Your task to perform on an android device: install app "Microsoft Outlook" Image 0: 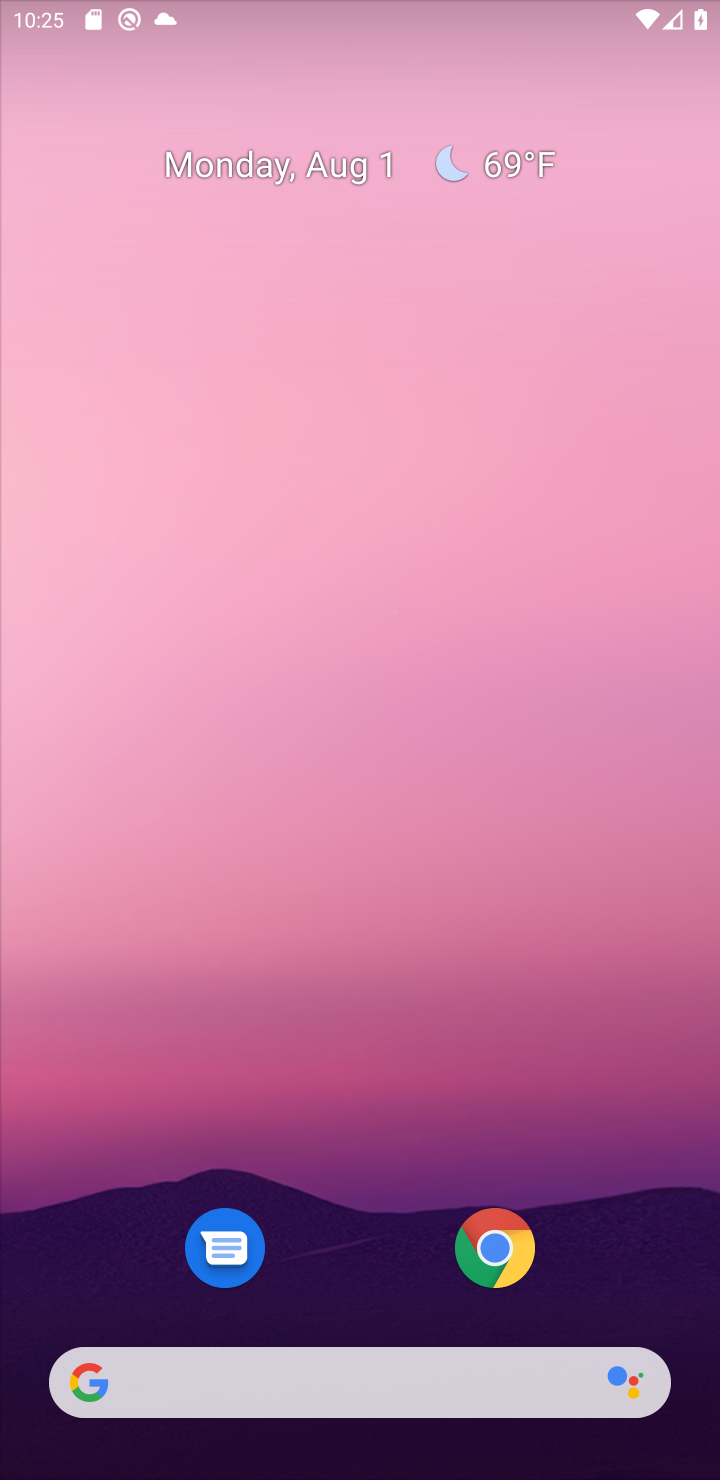
Step 0: press home button
Your task to perform on an android device: install app "Microsoft Outlook" Image 1: 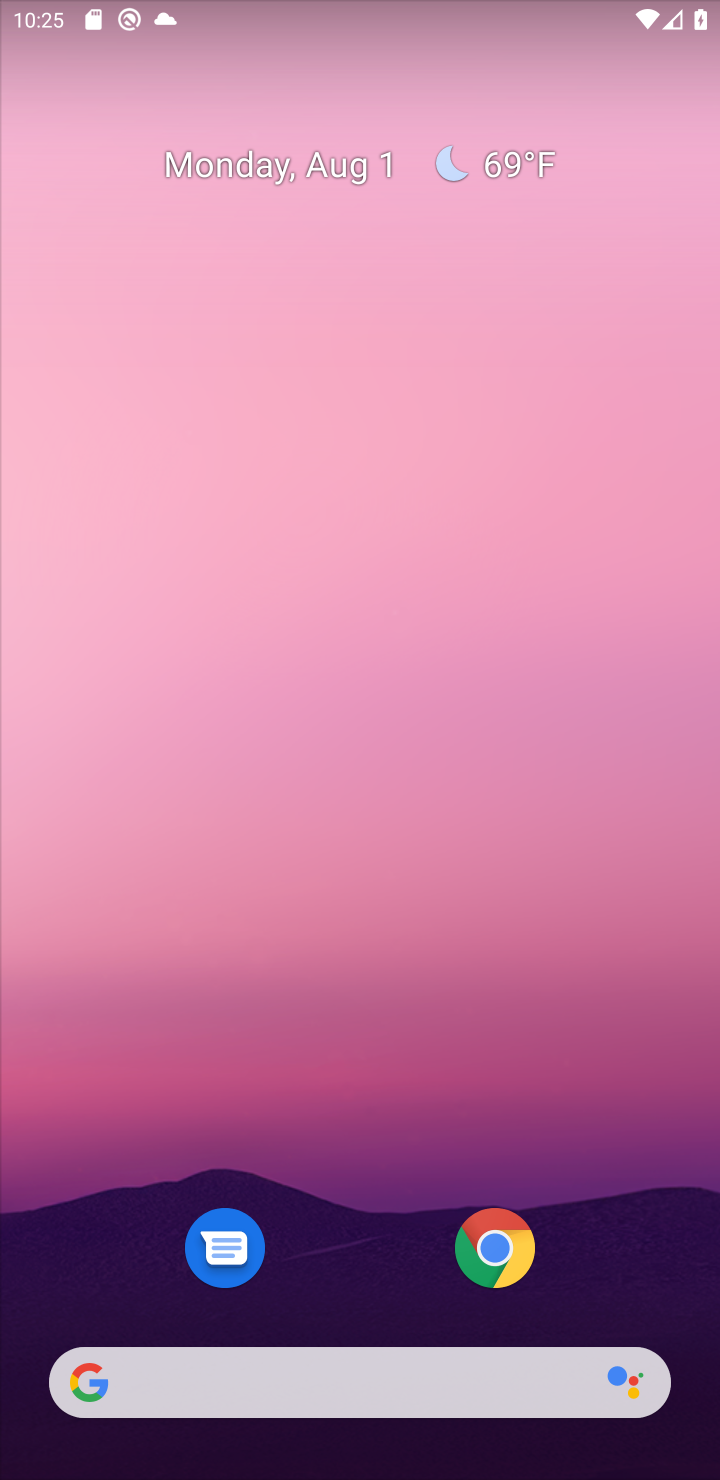
Step 1: drag from (339, 1265) to (449, 1)
Your task to perform on an android device: install app "Microsoft Outlook" Image 2: 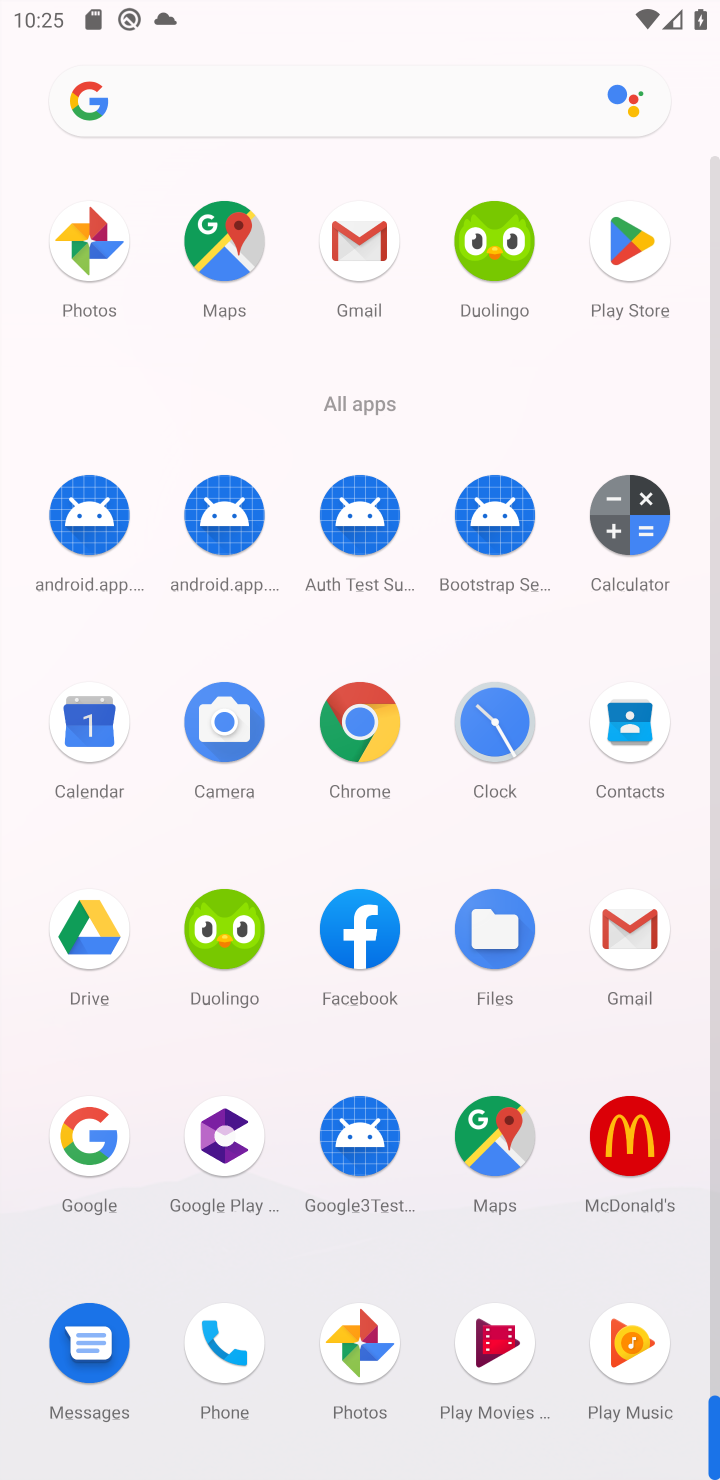
Step 2: drag from (559, 1286) to (617, 411)
Your task to perform on an android device: install app "Microsoft Outlook" Image 3: 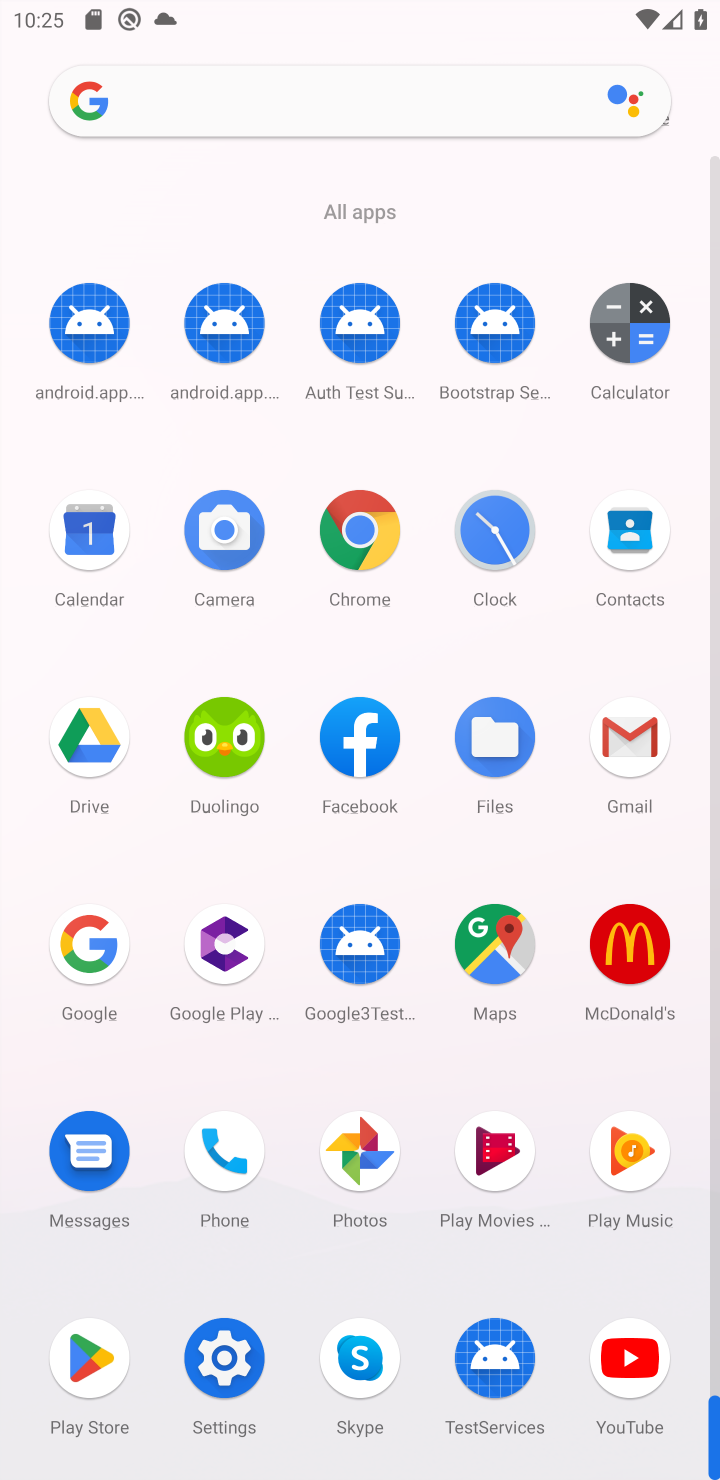
Step 3: click (81, 1368)
Your task to perform on an android device: install app "Microsoft Outlook" Image 4: 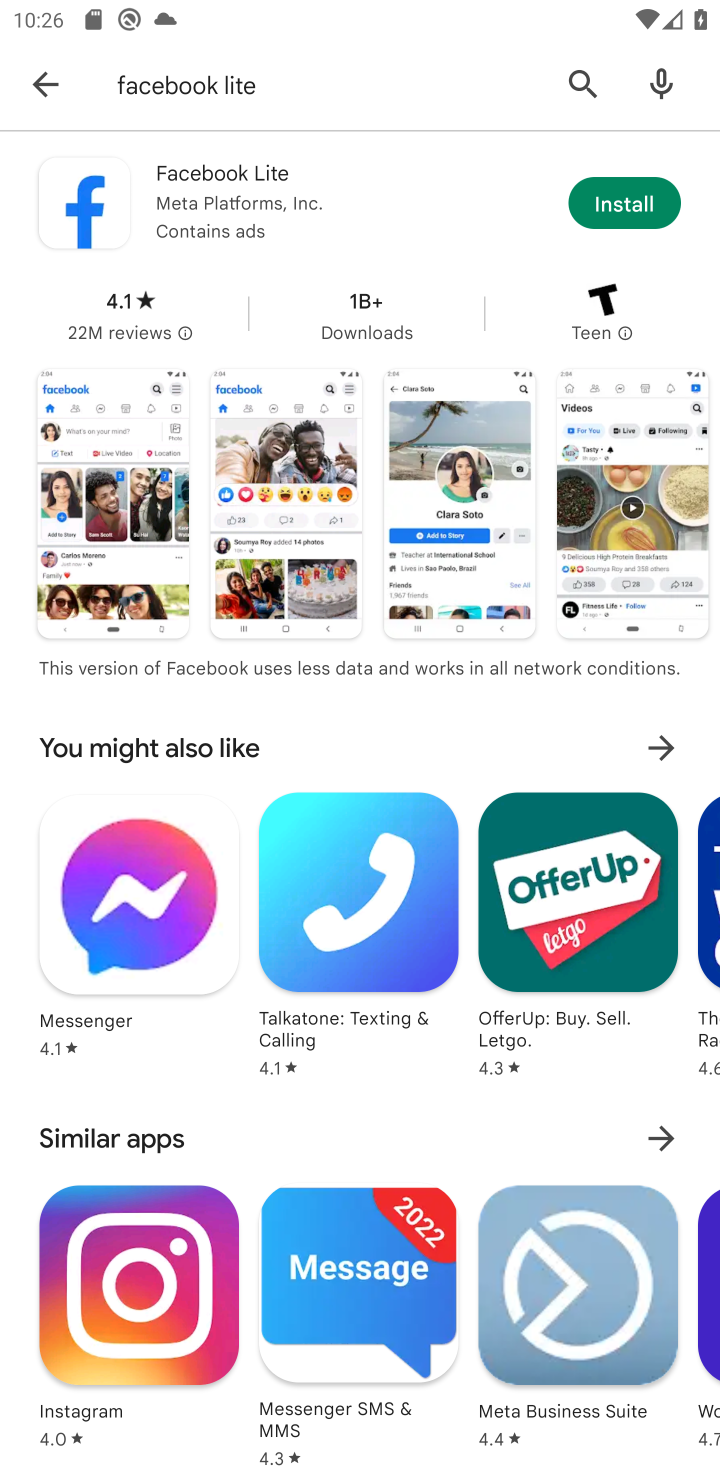
Step 4: click (441, 101)
Your task to perform on an android device: install app "Microsoft Outlook" Image 5: 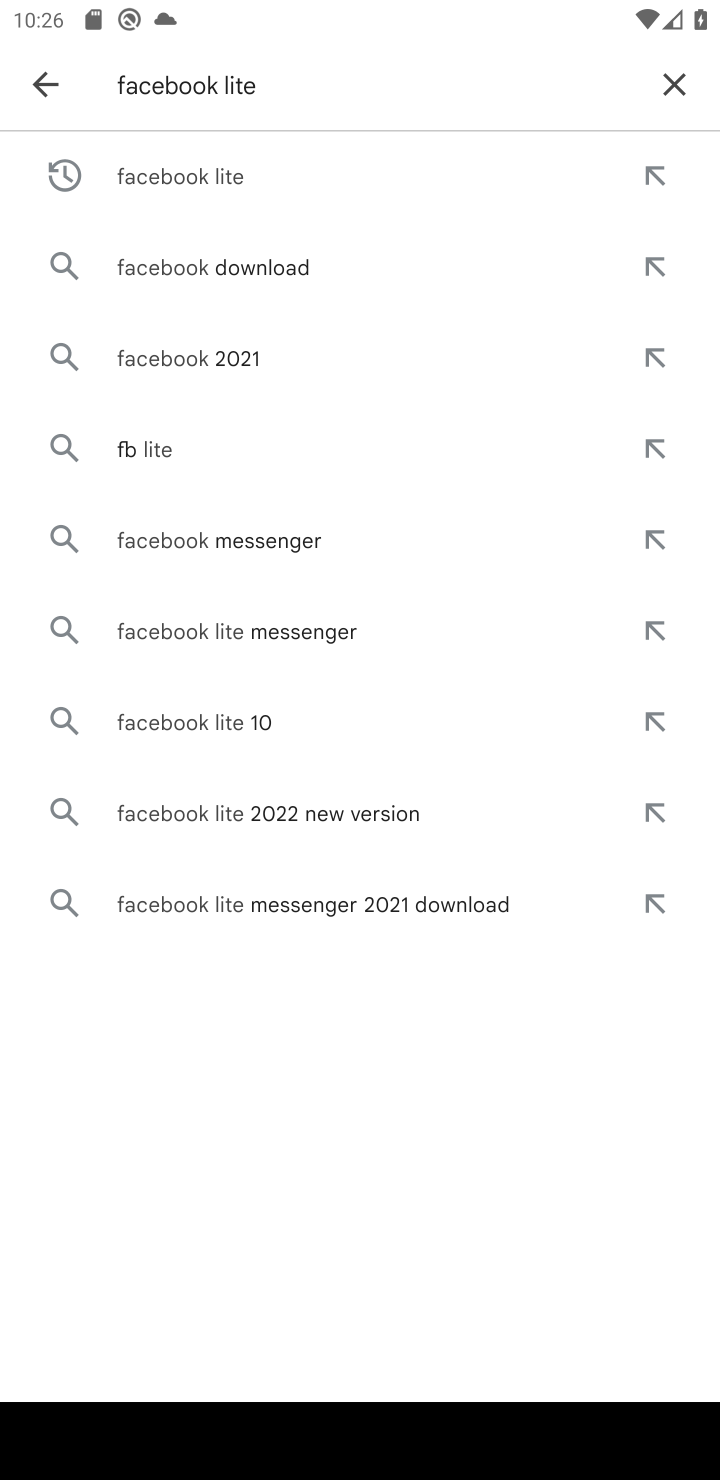
Step 5: click (689, 77)
Your task to perform on an android device: install app "Microsoft Outlook" Image 6: 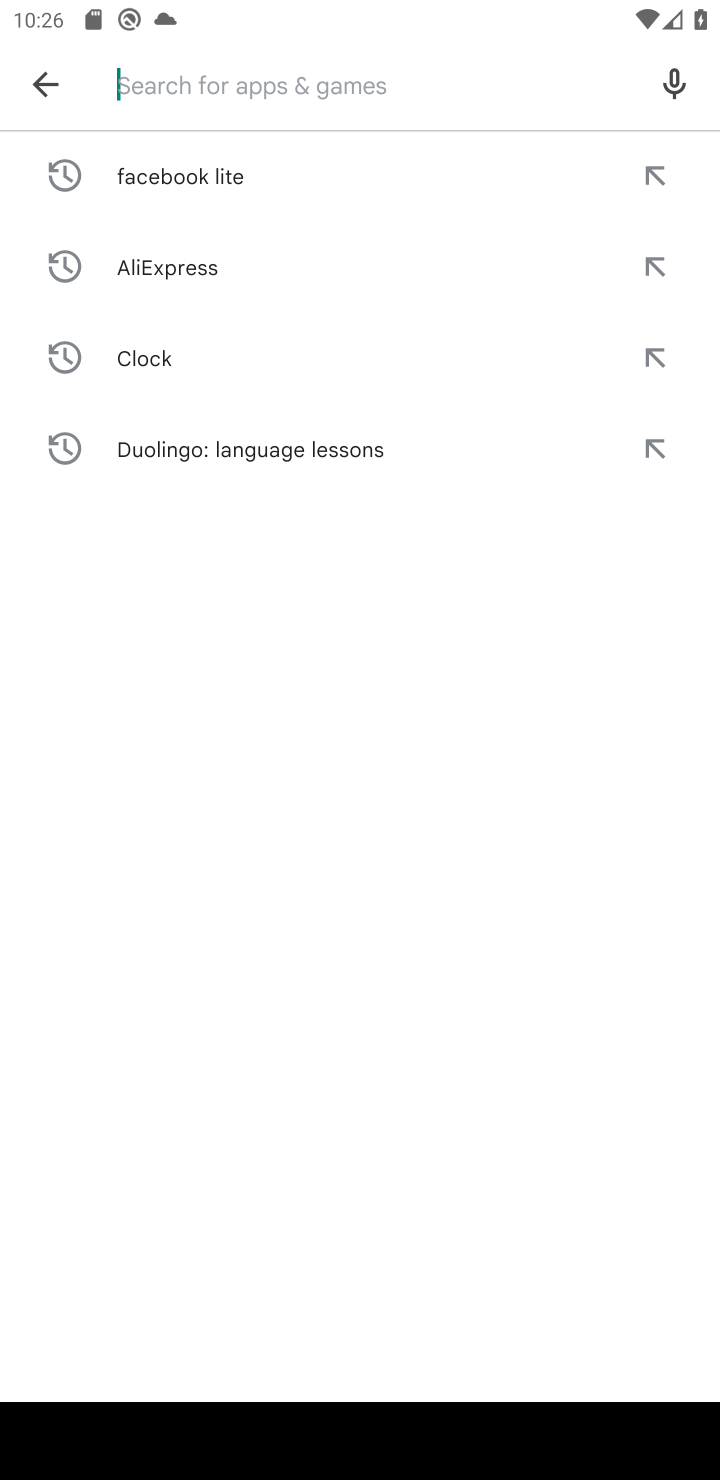
Step 6: type "Microsoft Outlook"
Your task to perform on an android device: install app "Microsoft Outlook" Image 7: 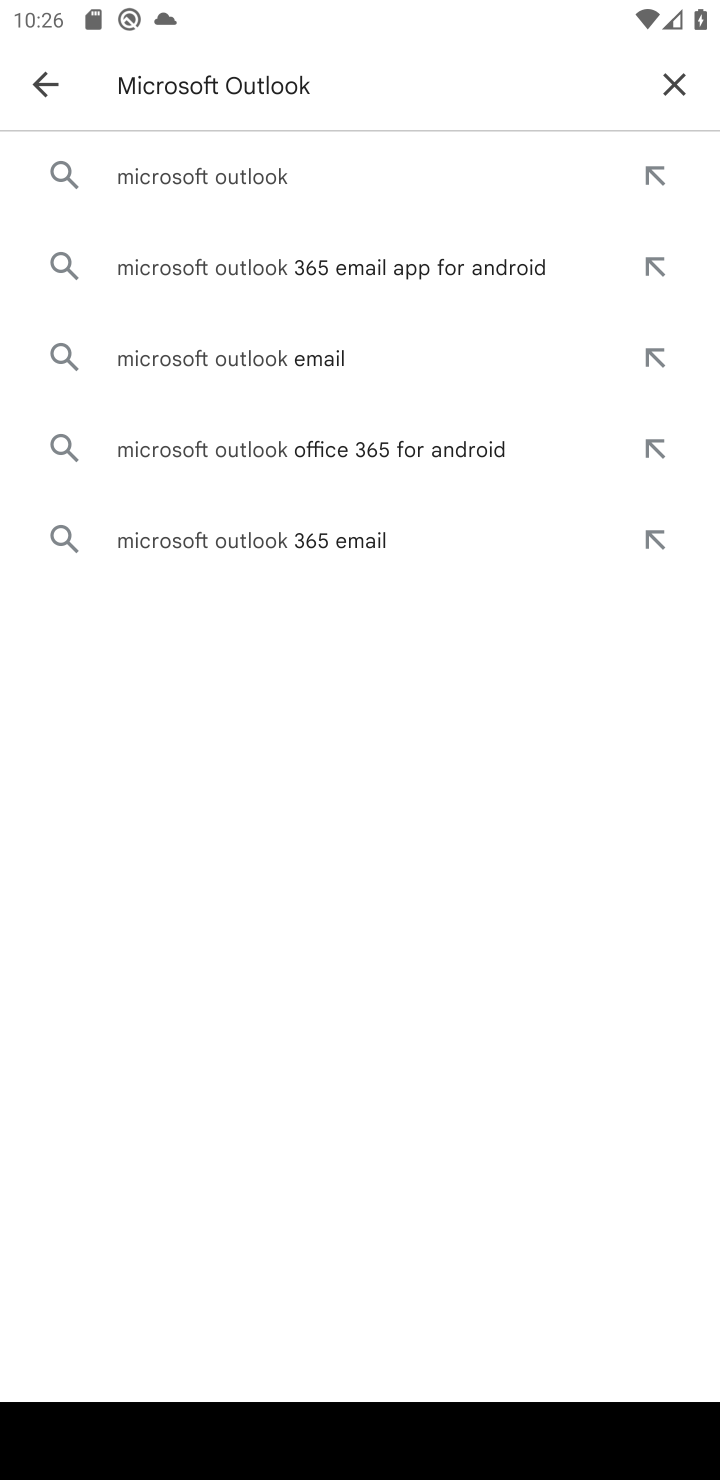
Step 7: press enter
Your task to perform on an android device: install app "Microsoft Outlook" Image 8: 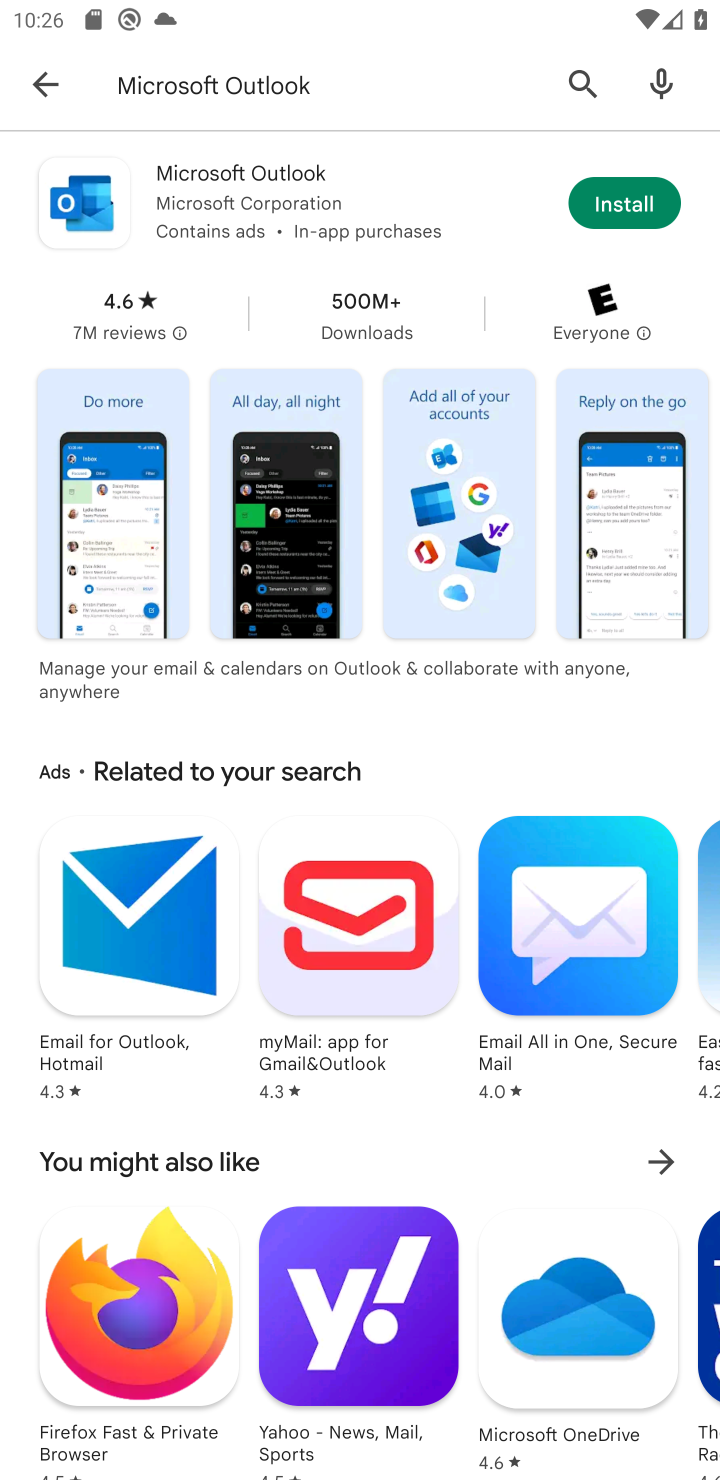
Step 8: click (638, 192)
Your task to perform on an android device: install app "Microsoft Outlook" Image 9: 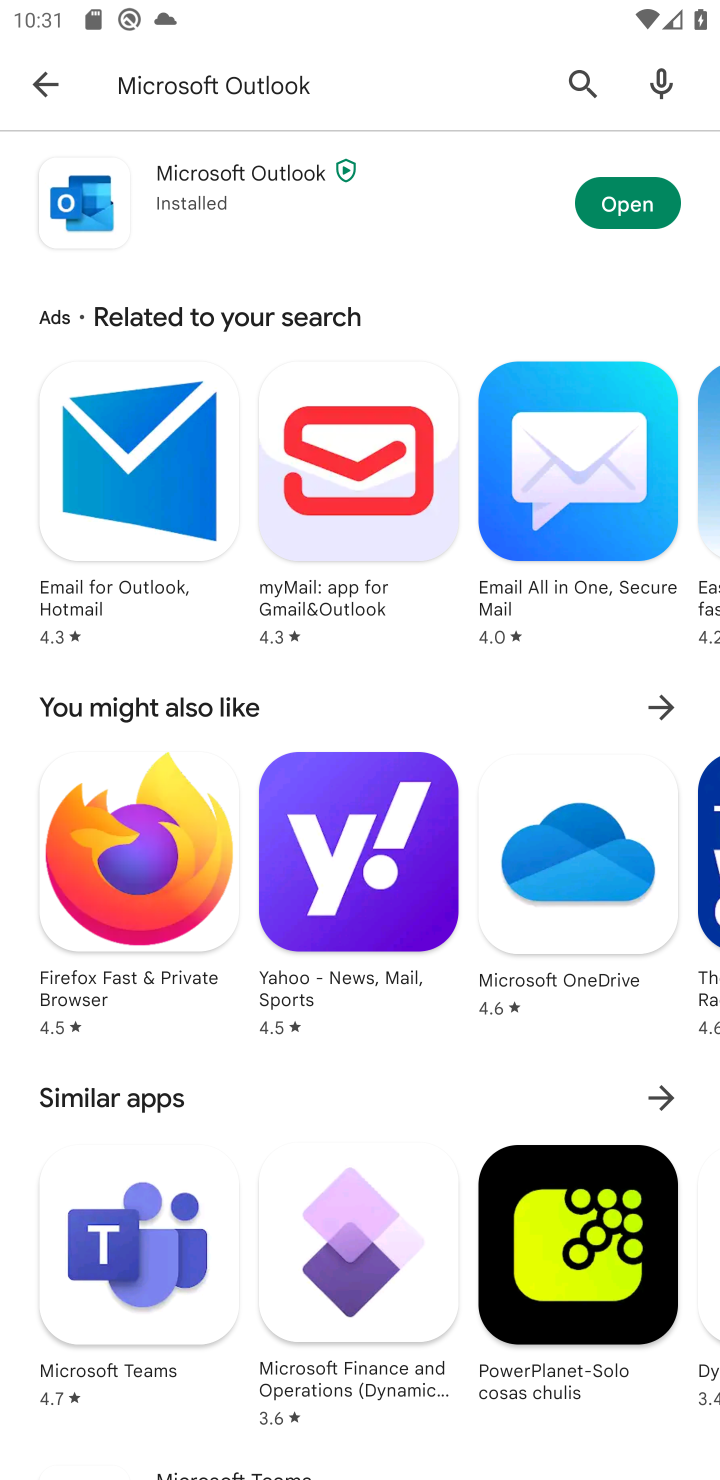
Step 9: task complete